Your task to perform on an android device: Search for Mexican restaurants on Maps Image 0: 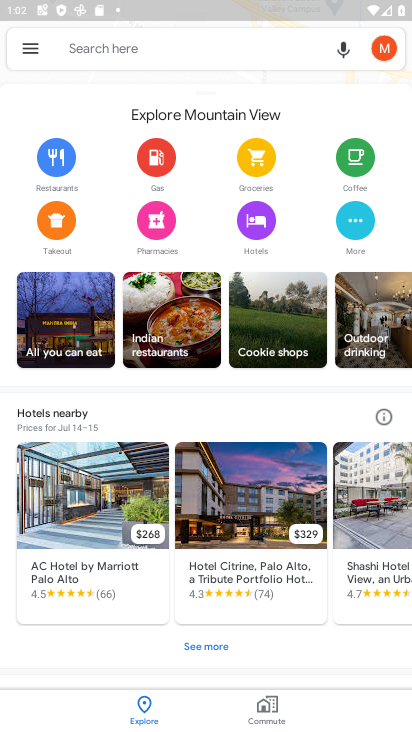
Step 0: press home button
Your task to perform on an android device: Search for Mexican restaurants on Maps Image 1: 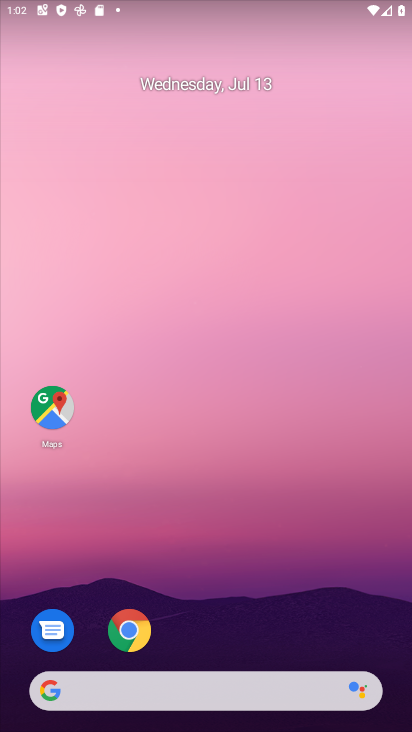
Step 1: drag from (392, 688) to (241, 9)
Your task to perform on an android device: Search for Mexican restaurants on Maps Image 2: 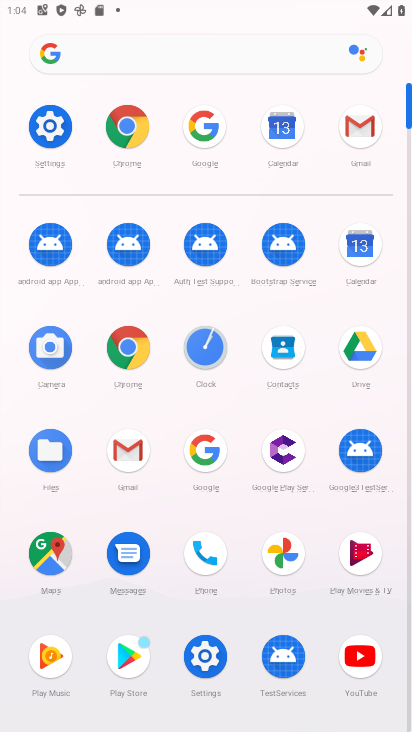
Step 2: click (48, 555)
Your task to perform on an android device: Search for Mexican restaurants on Maps Image 3: 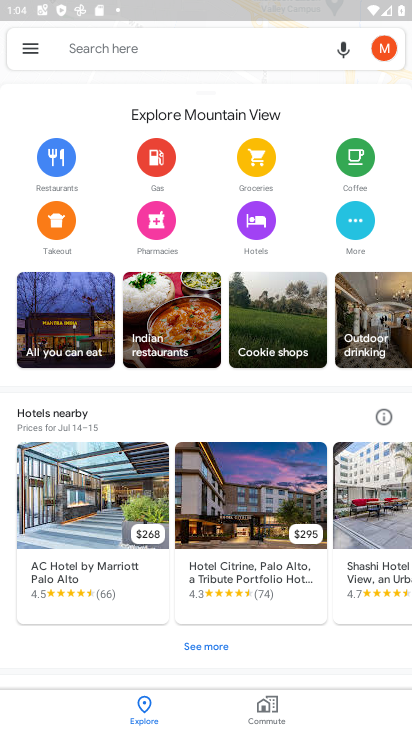
Step 3: click (138, 52)
Your task to perform on an android device: Search for Mexican restaurants on Maps Image 4: 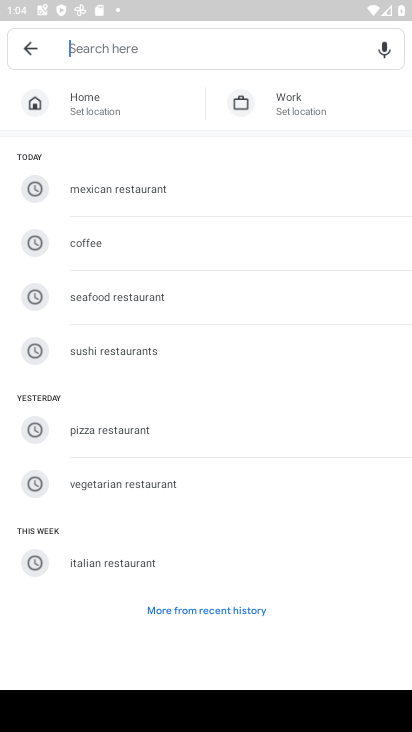
Step 4: click (102, 197)
Your task to perform on an android device: Search for Mexican restaurants on Maps Image 5: 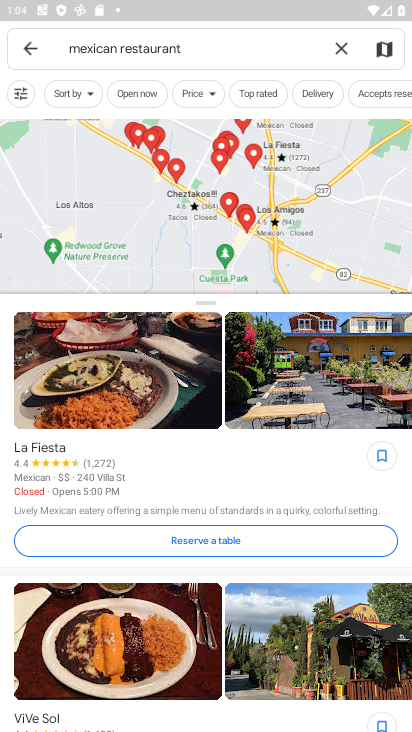
Step 5: task complete